Your task to perform on an android device: Do I have any events tomorrow? Image 0: 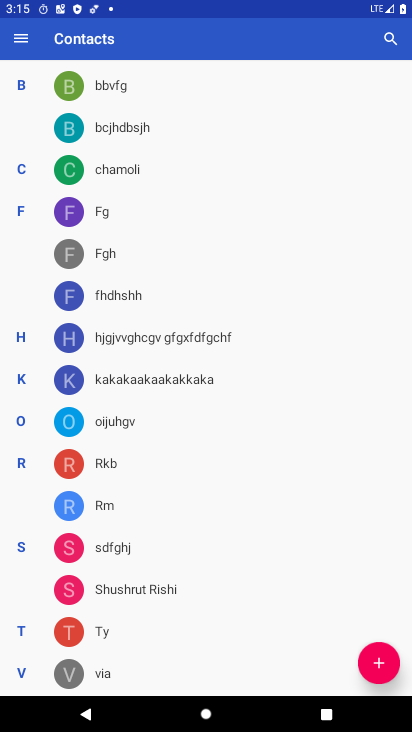
Step 0: press home button
Your task to perform on an android device: Do I have any events tomorrow? Image 1: 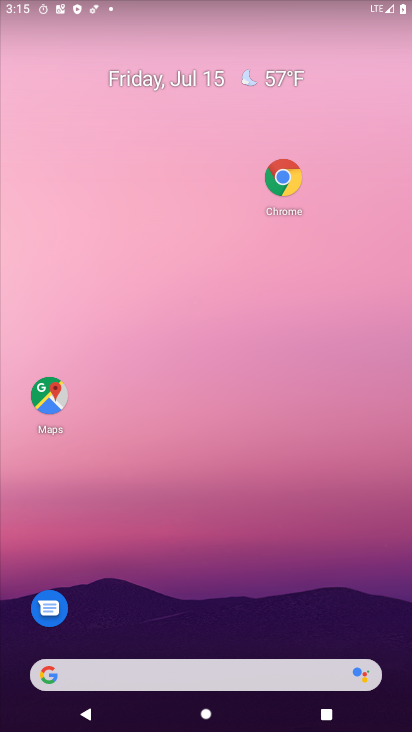
Step 1: drag from (214, 492) to (282, 36)
Your task to perform on an android device: Do I have any events tomorrow? Image 2: 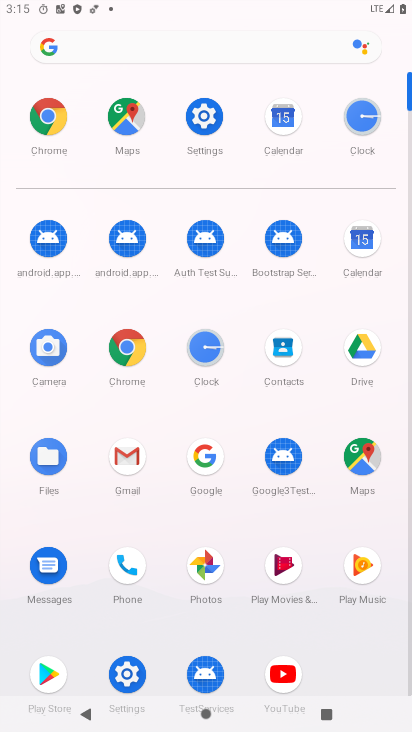
Step 2: click (379, 254)
Your task to perform on an android device: Do I have any events tomorrow? Image 3: 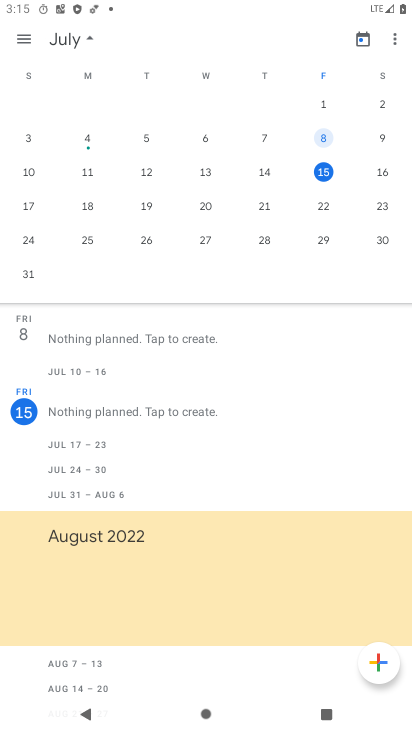
Step 3: click (384, 173)
Your task to perform on an android device: Do I have any events tomorrow? Image 4: 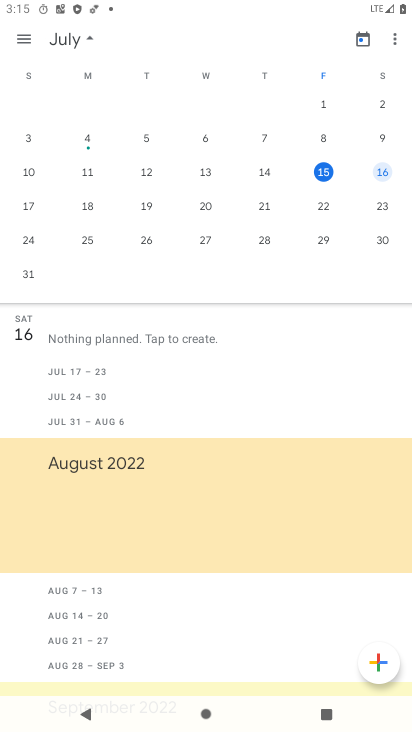
Step 4: task complete